Your task to perform on an android device: change your default location settings in chrome Image 0: 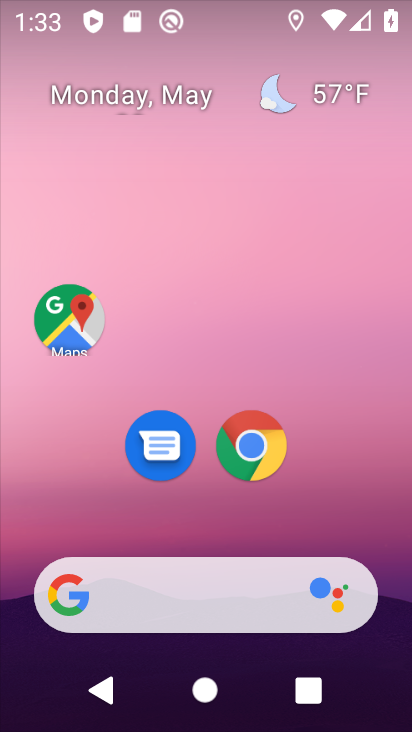
Step 0: click (249, 455)
Your task to perform on an android device: change your default location settings in chrome Image 1: 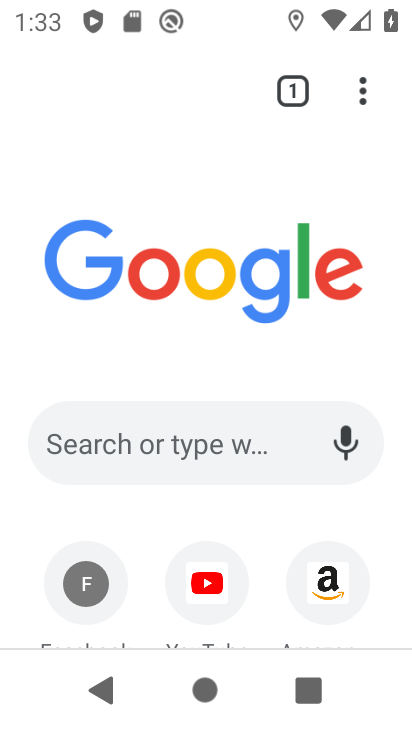
Step 1: click (352, 81)
Your task to perform on an android device: change your default location settings in chrome Image 2: 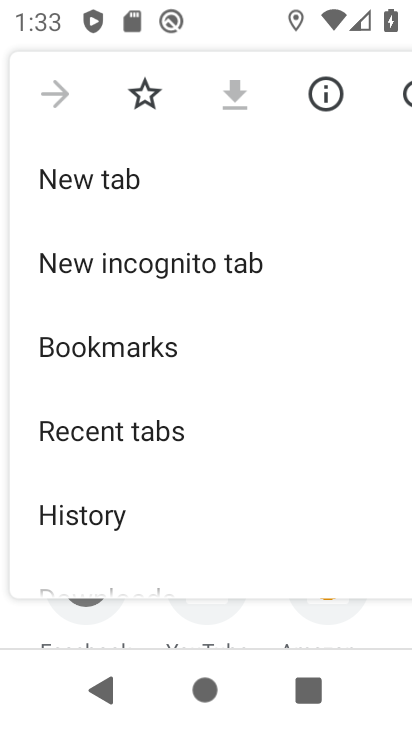
Step 2: drag from (213, 432) to (178, 171)
Your task to perform on an android device: change your default location settings in chrome Image 3: 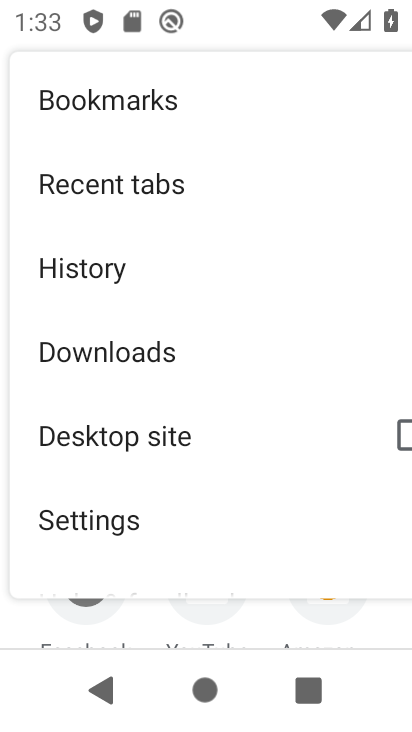
Step 3: click (86, 516)
Your task to perform on an android device: change your default location settings in chrome Image 4: 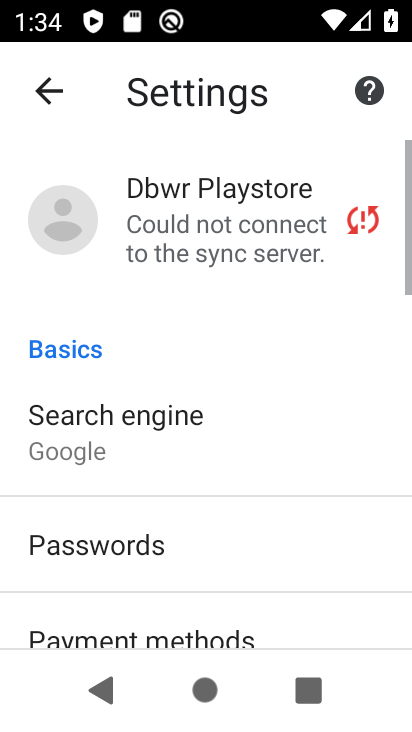
Step 4: drag from (299, 503) to (295, 122)
Your task to perform on an android device: change your default location settings in chrome Image 5: 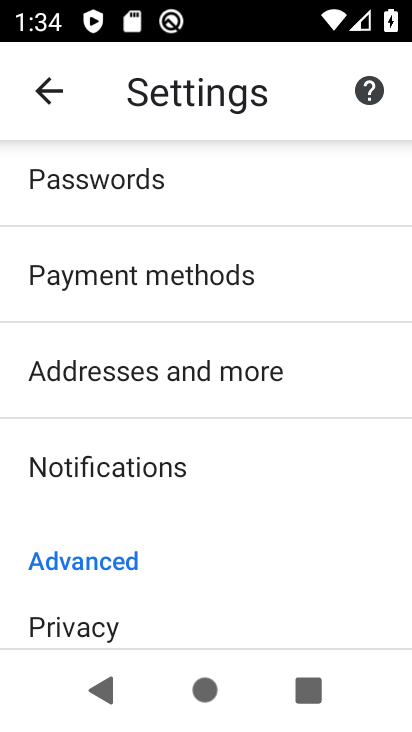
Step 5: drag from (174, 430) to (180, 196)
Your task to perform on an android device: change your default location settings in chrome Image 6: 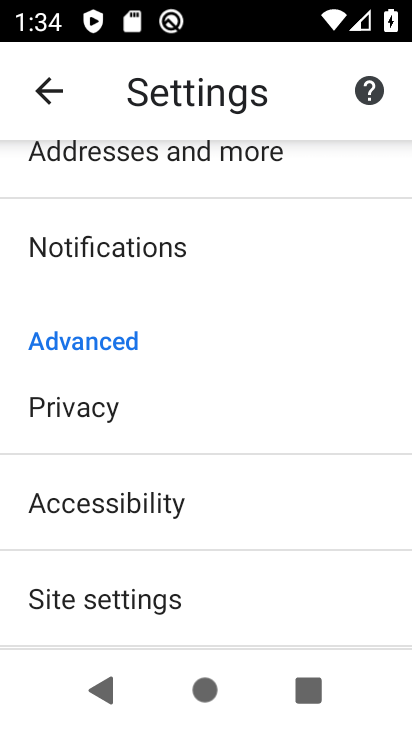
Step 6: drag from (101, 570) to (124, 198)
Your task to perform on an android device: change your default location settings in chrome Image 7: 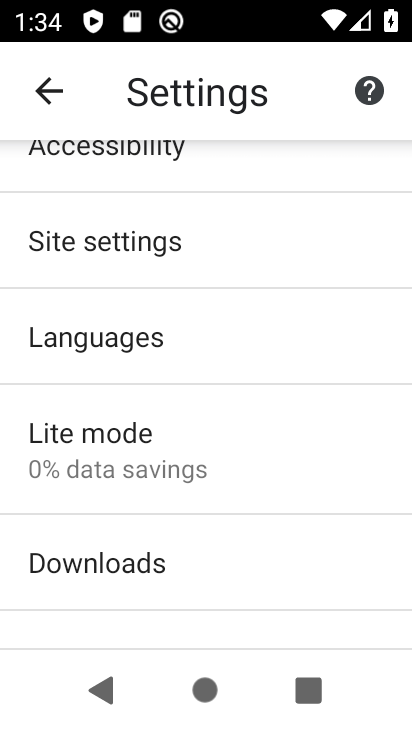
Step 7: click (98, 227)
Your task to perform on an android device: change your default location settings in chrome Image 8: 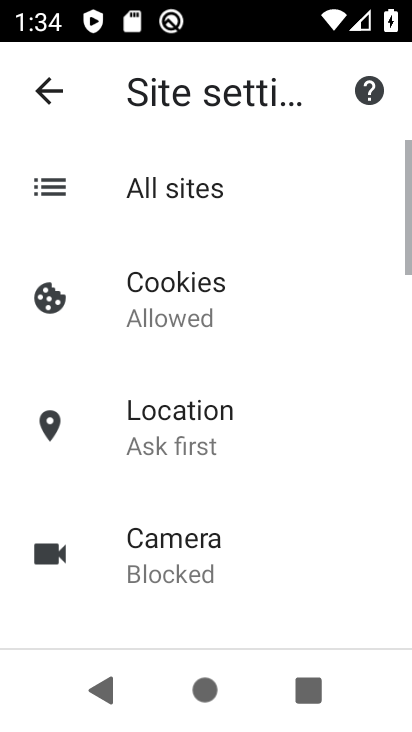
Step 8: click (174, 426)
Your task to perform on an android device: change your default location settings in chrome Image 9: 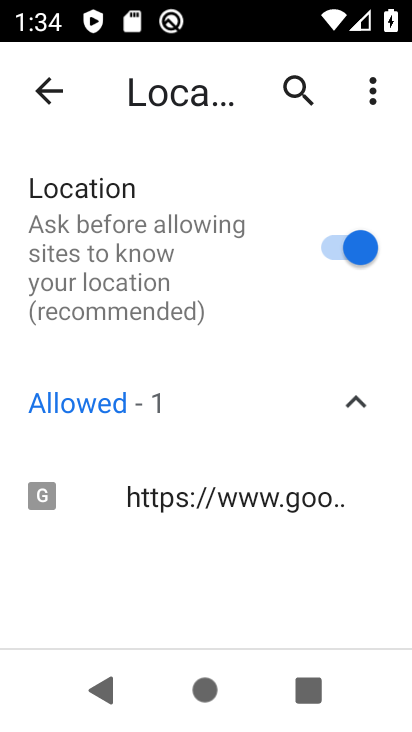
Step 9: click (343, 234)
Your task to perform on an android device: change your default location settings in chrome Image 10: 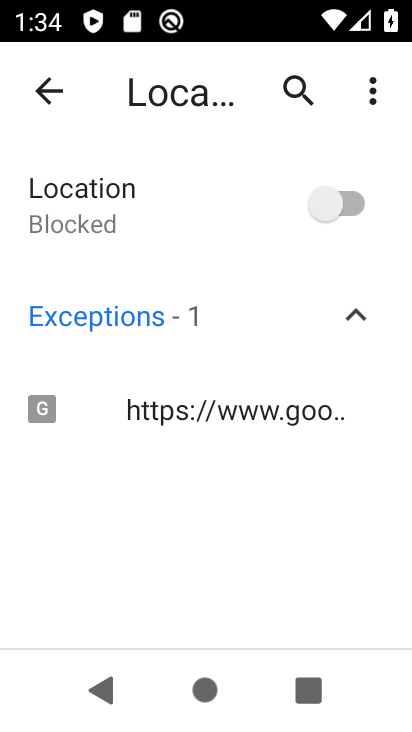
Step 10: task complete